Your task to perform on an android device: Empty the shopping cart on costco. Image 0: 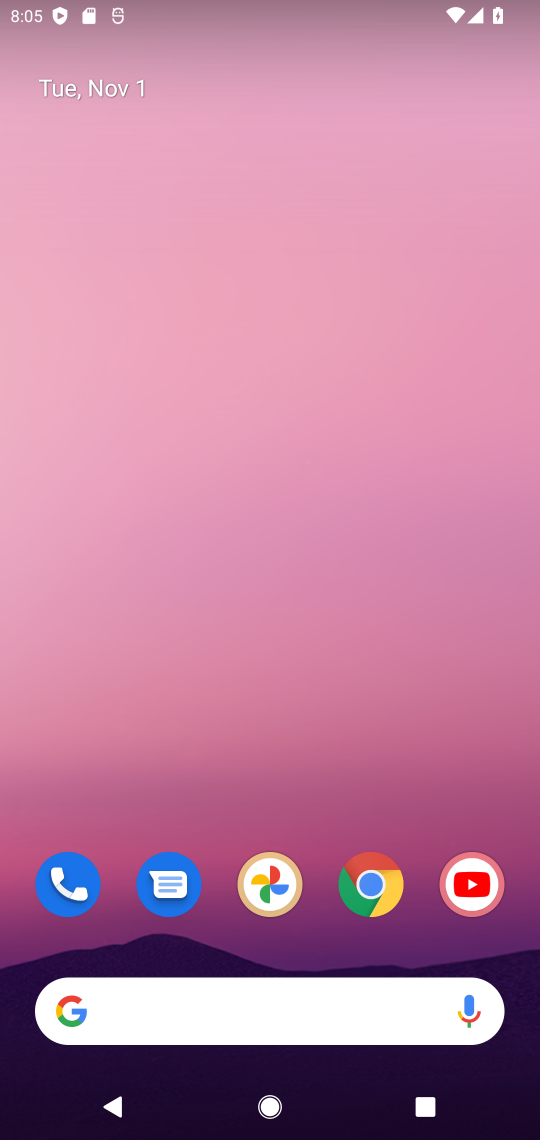
Step 0: click (370, 885)
Your task to perform on an android device: Empty the shopping cart on costco. Image 1: 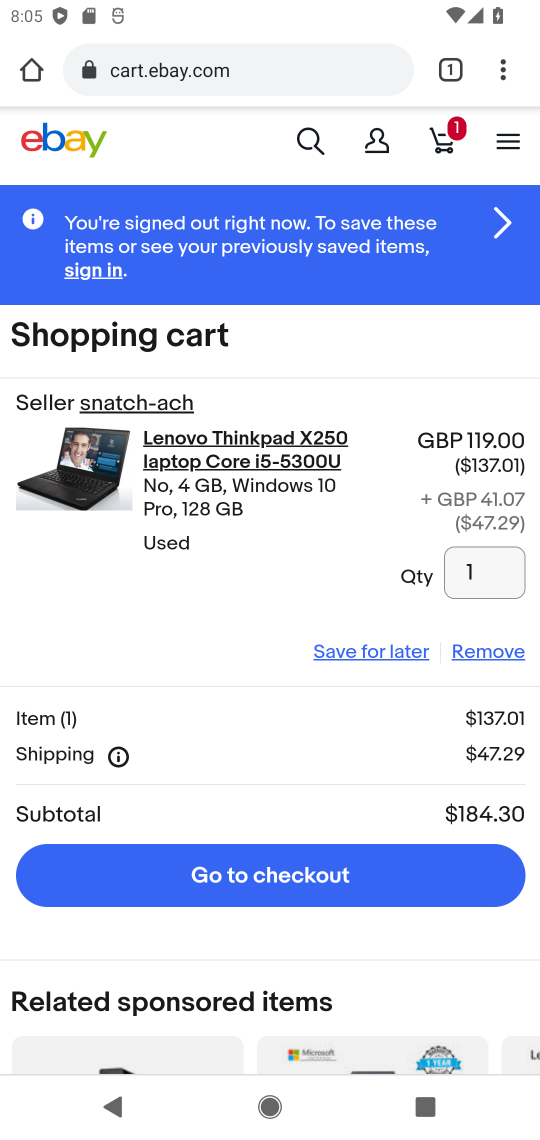
Step 1: click (338, 67)
Your task to perform on an android device: Empty the shopping cart on costco. Image 2: 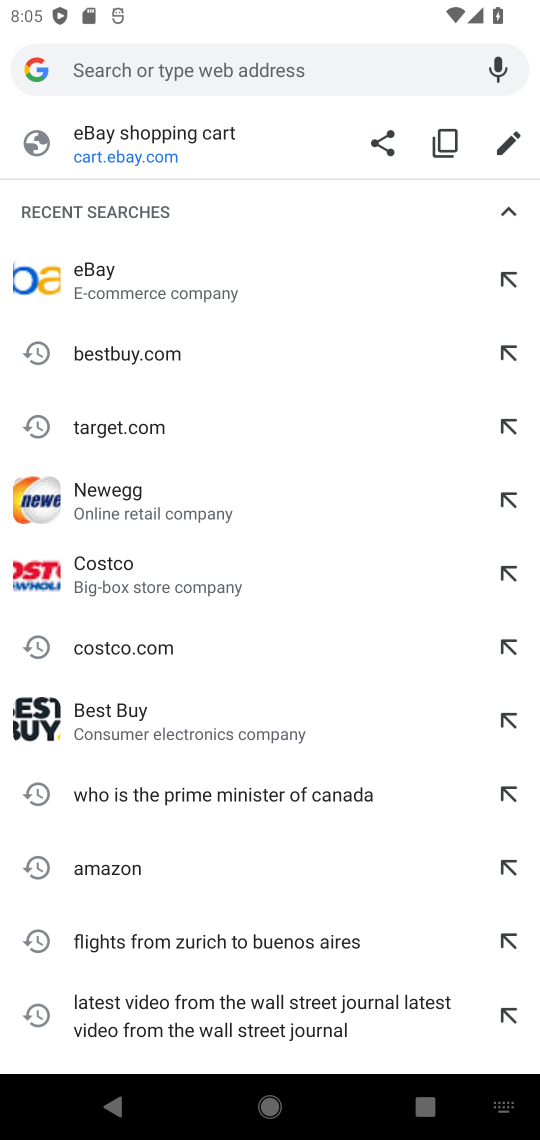
Step 2: type "costco"
Your task to perform on an android device: Empty the shopping cart on costco. Image 3: 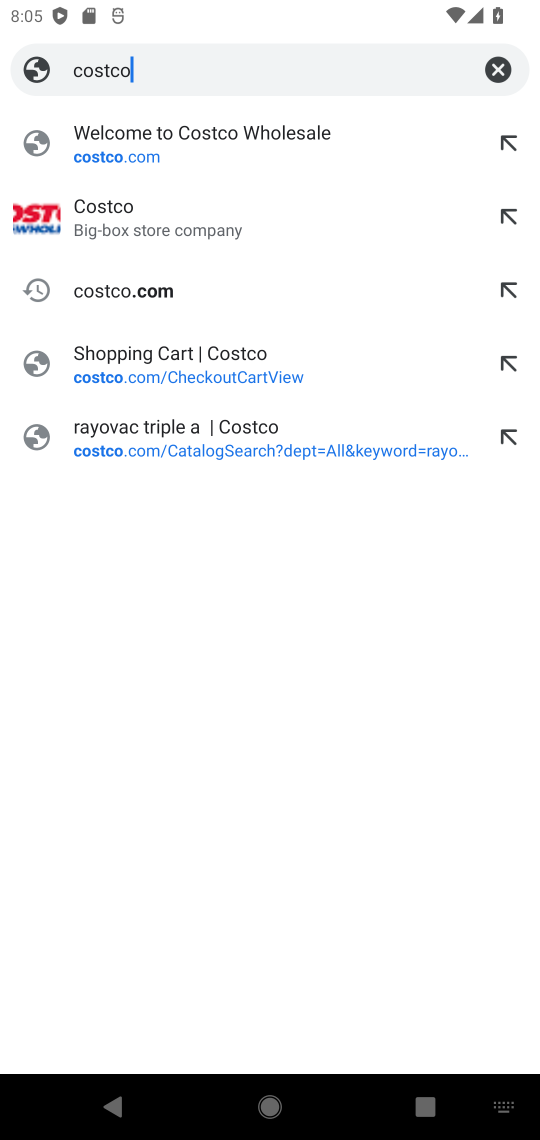
Step 3: click (149, 229)
Your task to perform on an android device: Empty the shopping cart on costco. Image 4: 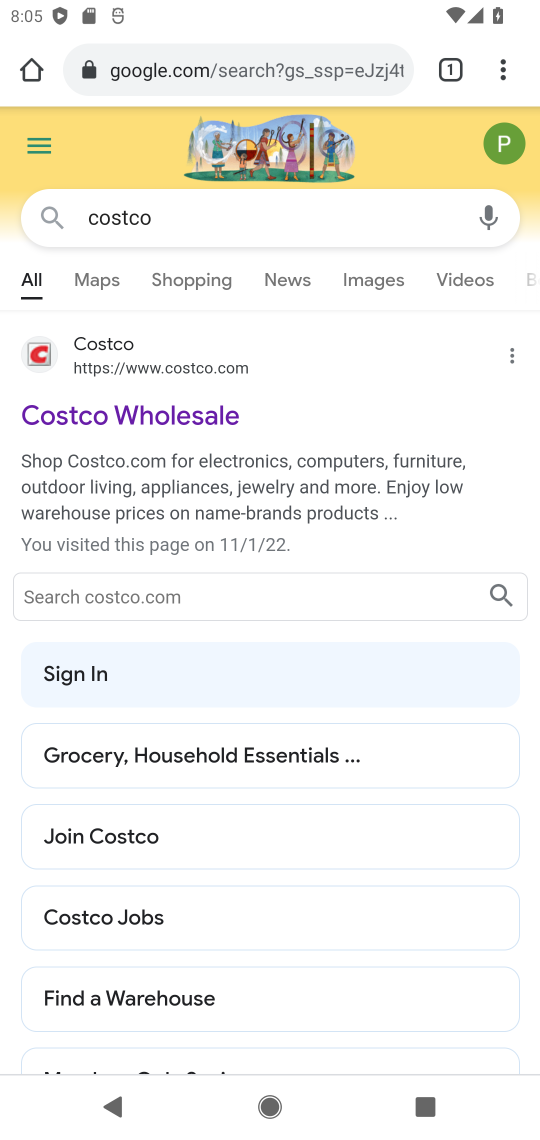
Step 4: click (152, 410)
Your task to perform on an android device: Empty the shopping cart on costco. Image 5: 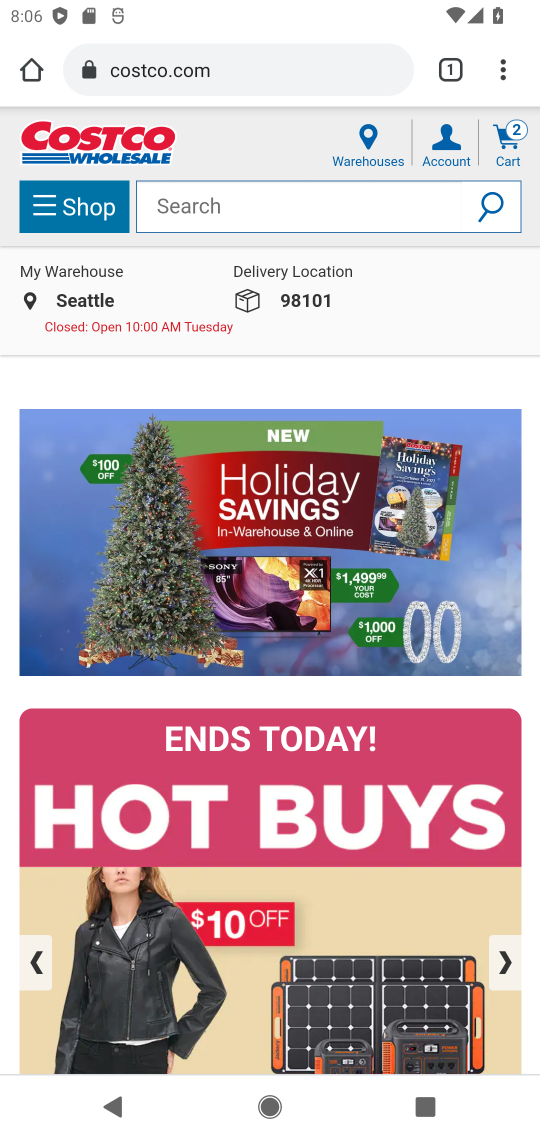
Step 5: click (507, 143)
Your task to perform on an android device: Empty the shopping cart on costco. Image 6: 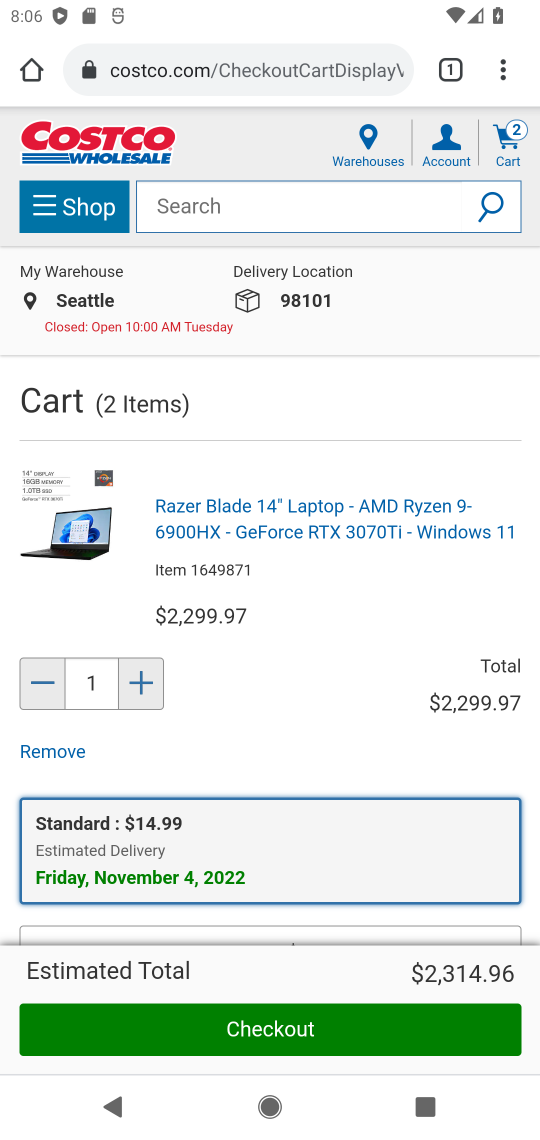
Step 6: drag from (315, 752) to (392, 384)
Your task to perform on an android device: Empty the shopping cart on costco. Image 7: 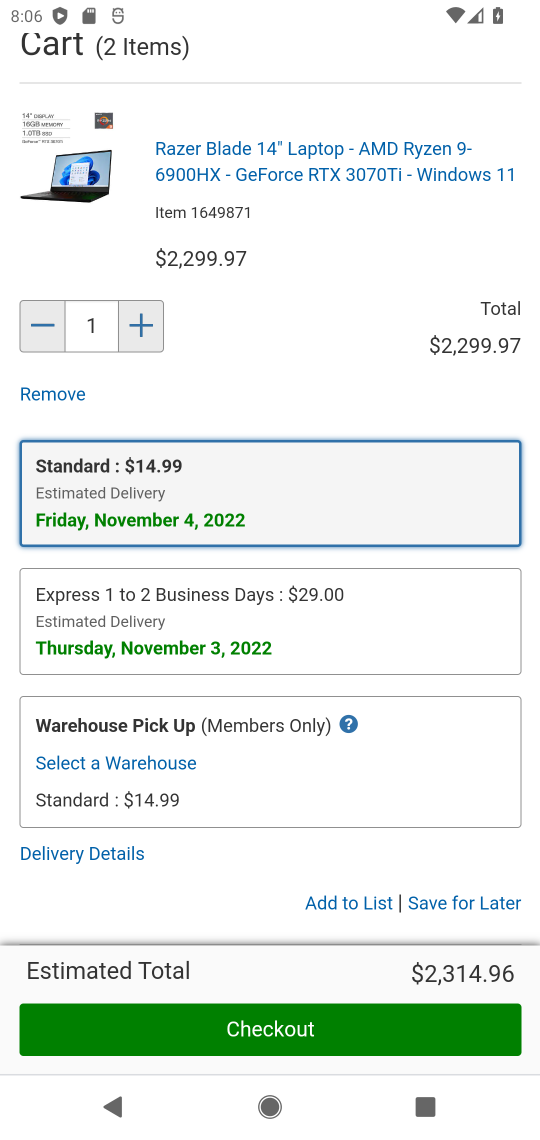
Step 7: click (447, 897)
Your task to perform on an android device: Empty the shopping cart on costco. Image 8: 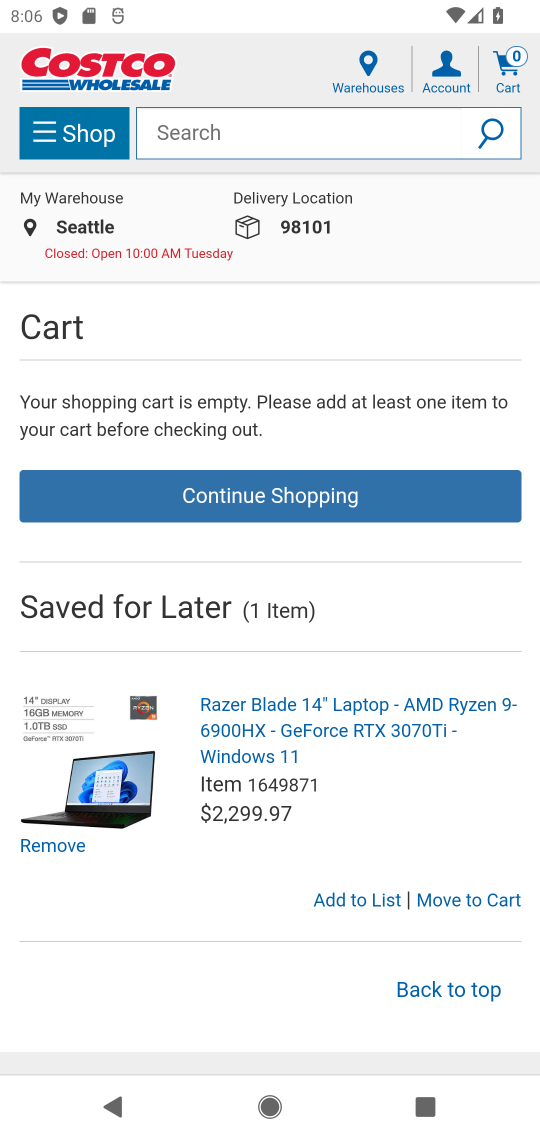
Step 8: task complete